Your task to perform on an android device: Clear the cart on newegg.com. Add "bose quietcomfort 35" to the cart on newegg.com Image 0: 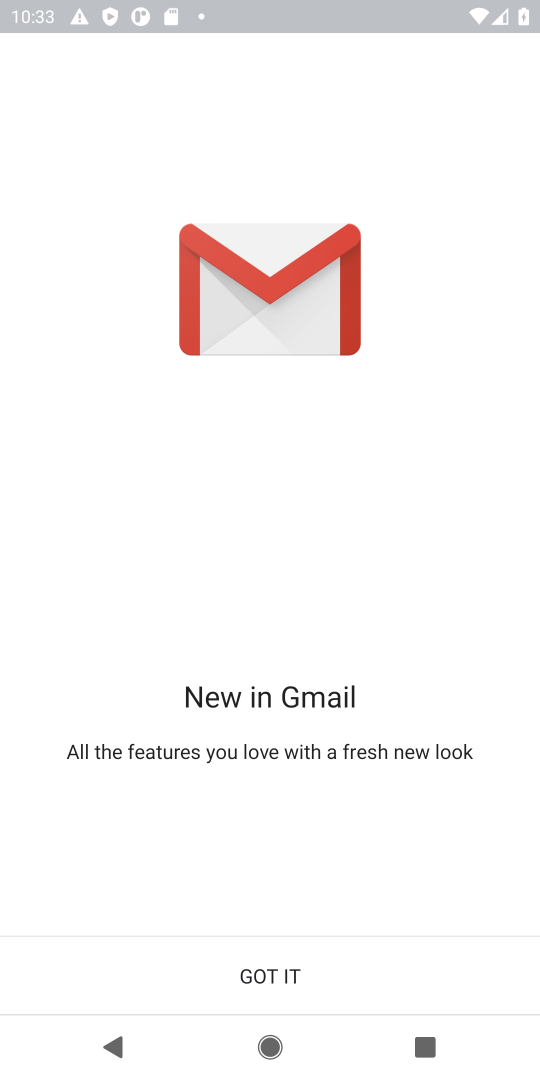
Step 0: press home button
Your task to perform on an android device: Clear the cart on newegg.com. Add "bose quietcomfort 35" to the cart on newegg.com Image 1: 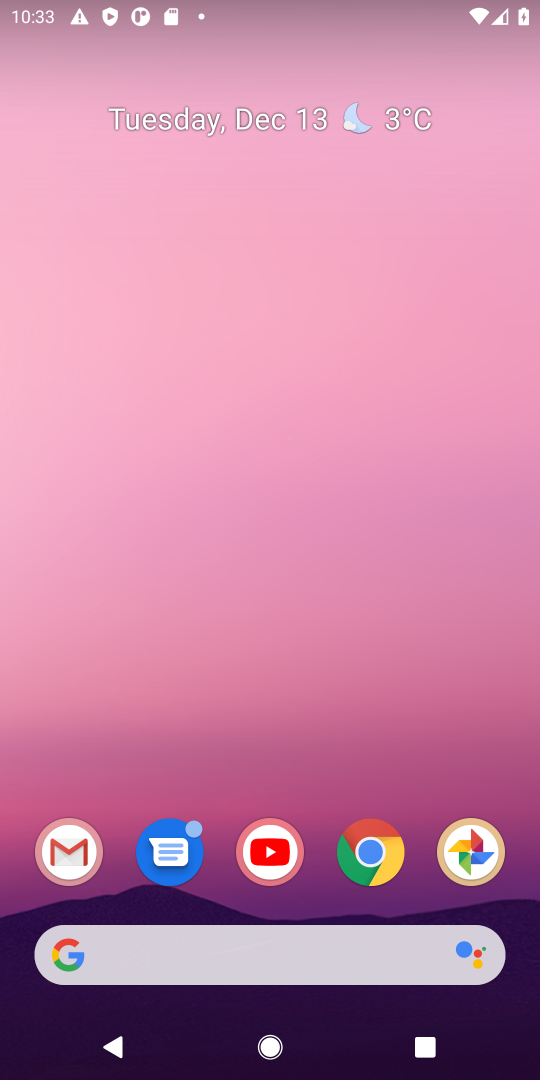
Step 1: click (99, 953)
Your task to perform on an android device: Clear the cart on newegg.com. Add "bose quietcomfort 35" to the cart on newegg.com Image 2: 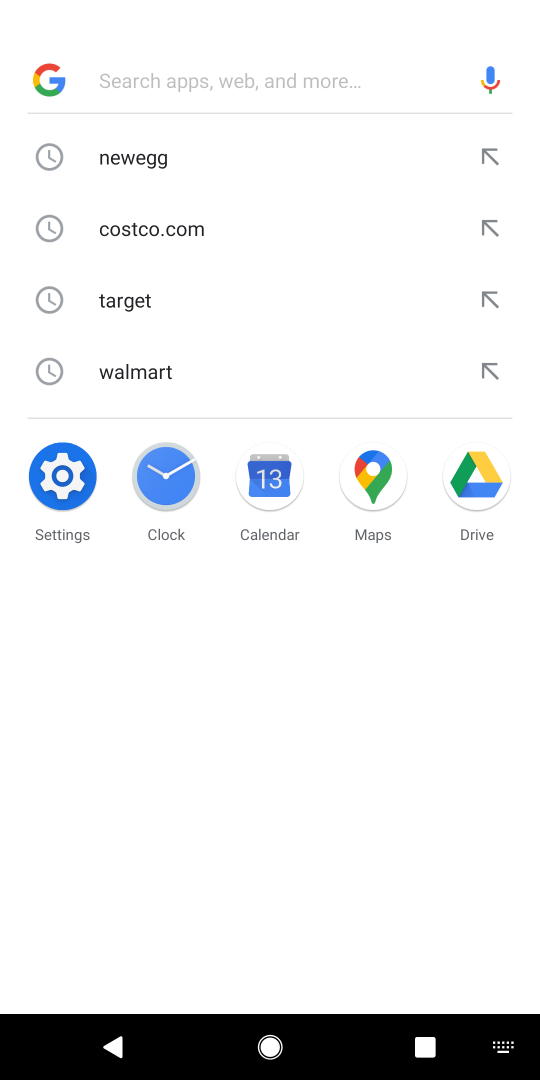
Step 2: type "newegg.com"
Your task to perform on an android device: Clear the cart on newegg.com. Add "bose quietcomfort 35" to the cart on newegg.com Image 3: 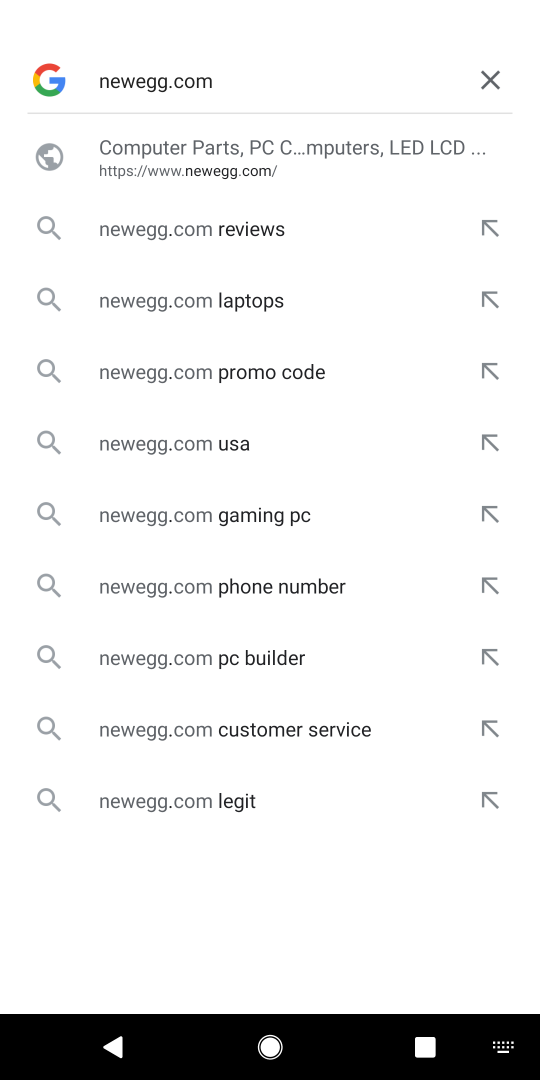
Step 3: press enter
Your task to perform on an android device: Clear the cart on newegg.com. Add "bose quietcomfort 35" to the cart on newegg.com Image 4: 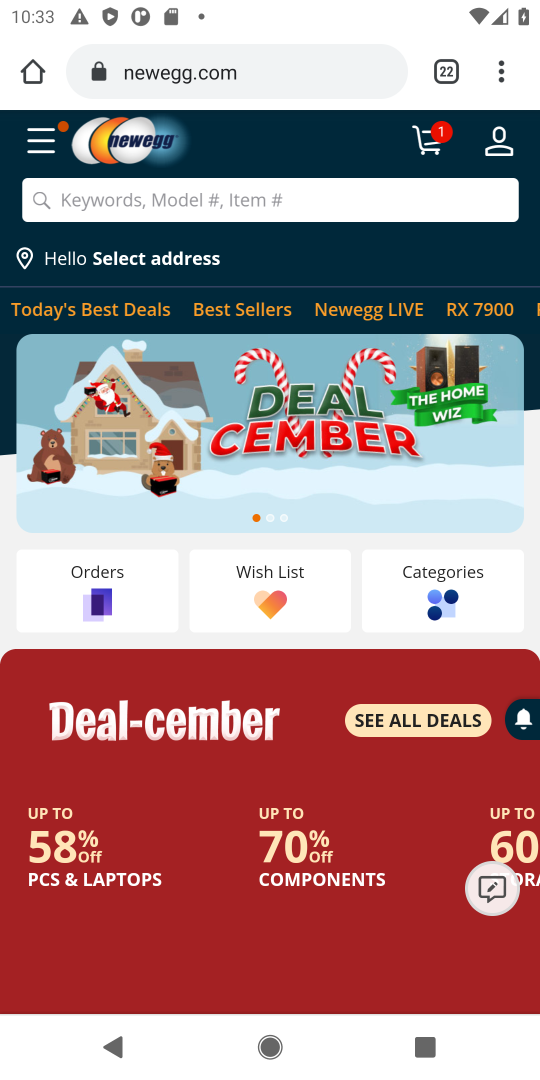
Step 4: click (427, 134)
Your task to perform on an android device: Clear the cart on newegg.com. Add "bose quietcomfort 35" to the cart on newegg.com Image 5: 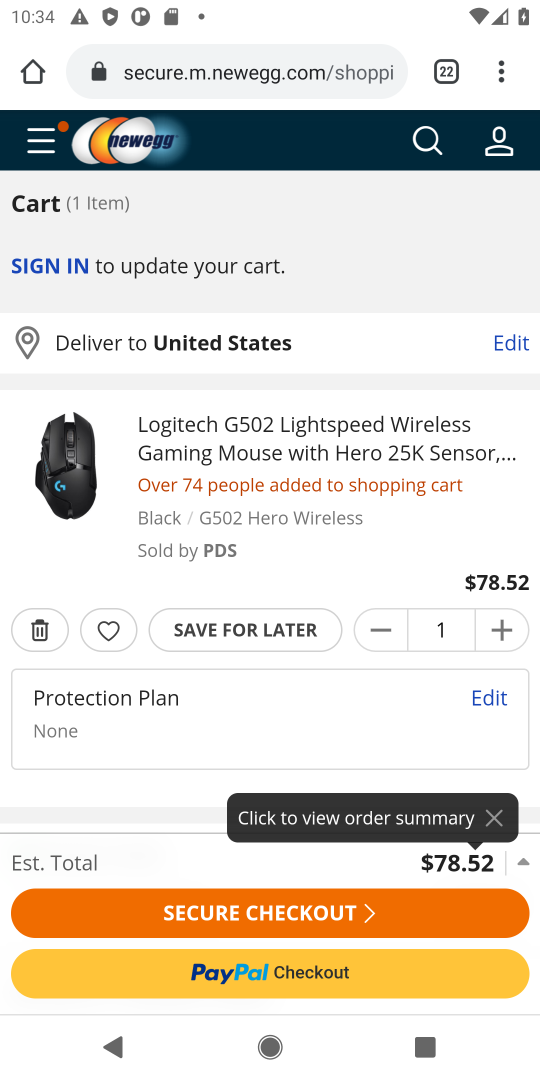
Step 5: click (43, 625)
Your task to perform on an android device: Clear the cart on newegg.com. Add "bose quietcomfort 35" to the cart on newegg.com Image 6: 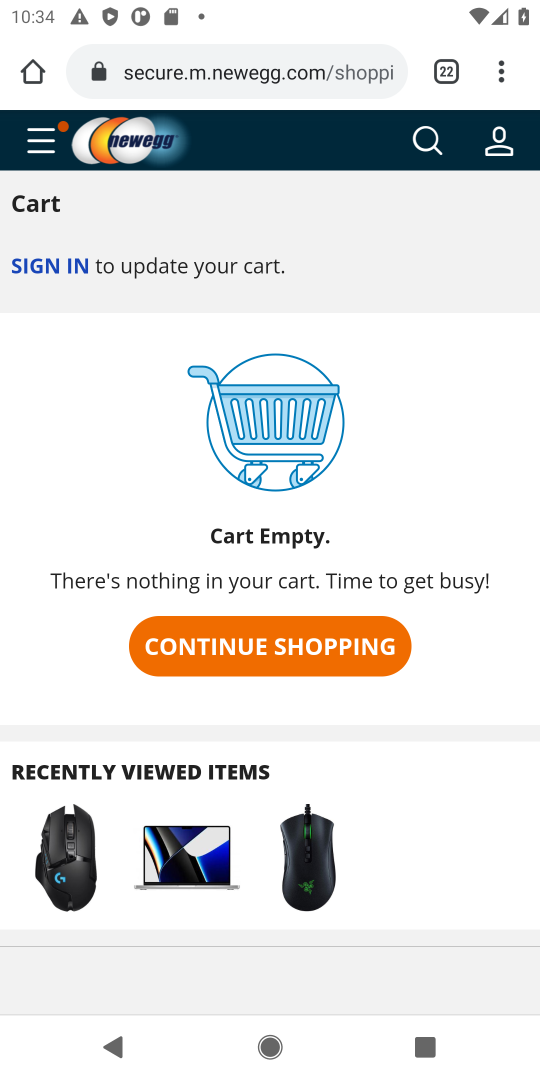
Step 6: task complete